Your task to perform on an android device: choose inbox layout in the gmail app Image 0: 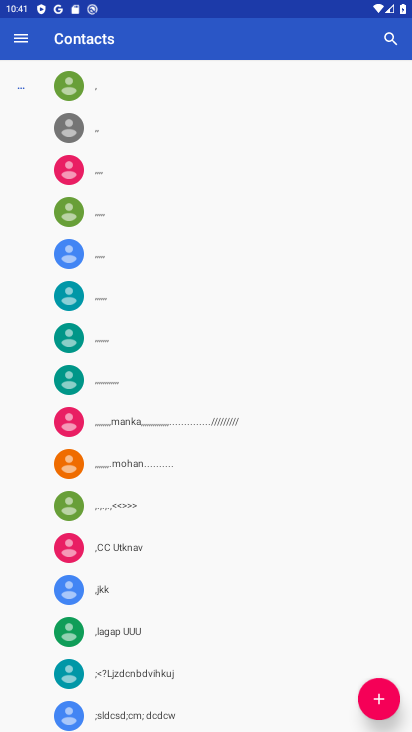
Step 0: press home button
Your task to perform on an android device: choose inbox layout in the gmail app Image 1: 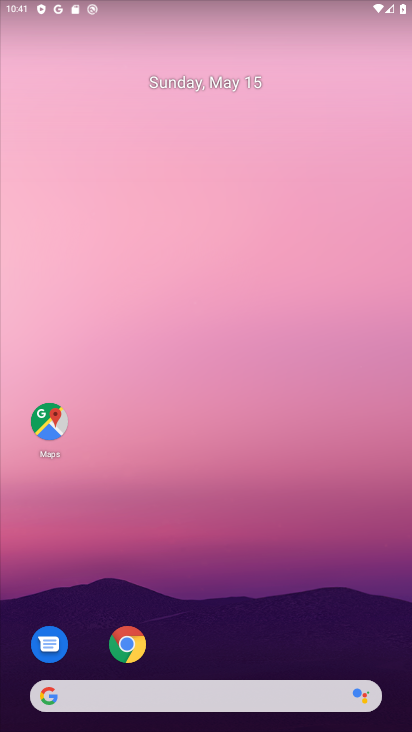
Step 1: drag from (246, 653) to (233, 250)
Your task to perform on an android device: choose inbox layout in the gmail app Image 2: 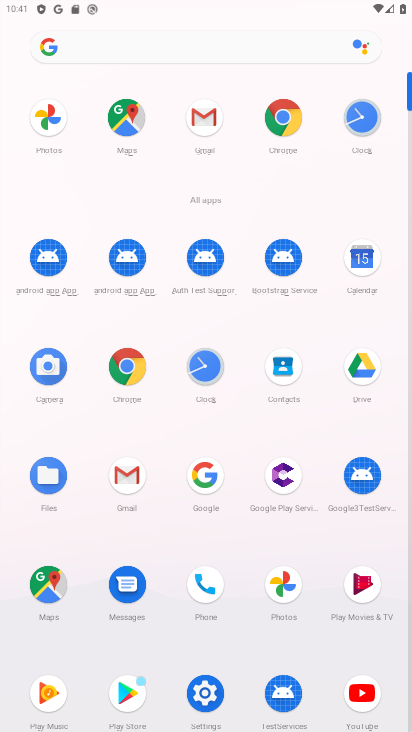
Step 2: click (206, 130)
Your task to perform on an android device: choose inbox layout in the gmail app Image 3: 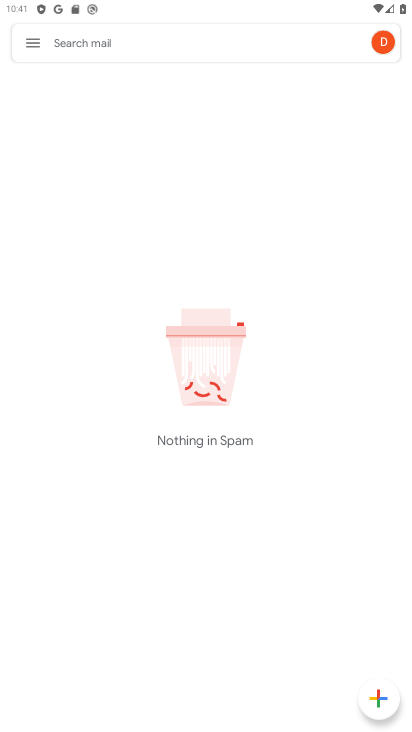
Step 3: click (34, 43)
Your task to perform on an android device: choose inbox layout in the gmail app Image 4: 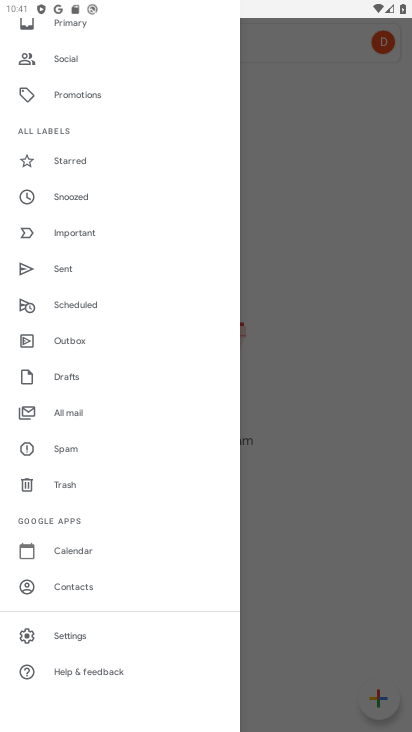
Step 4: drag from (111, 74) to (113, 18)
Your task to perform on an android device: choose inbox layout in the gmail app Image 5: 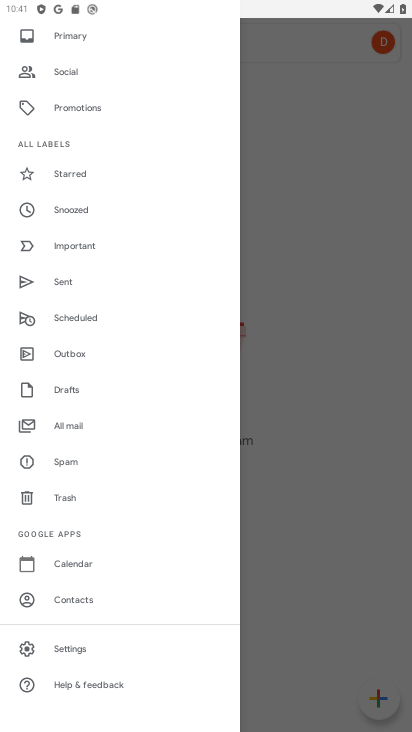
Step 5: click (99, 649)
Your task to perform on an android device: choose inbox layout in the gmail app Image 6: 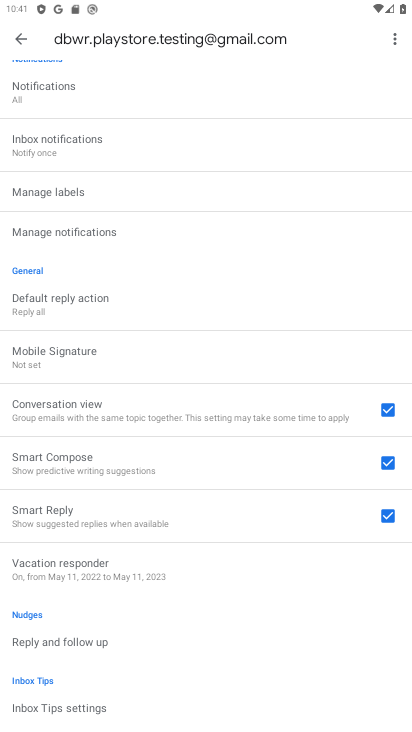
Step 6: drag from (181, 106) to (173, 557)
Your task to perform on an android device: choose inbox layout in the gmail app Image 7: 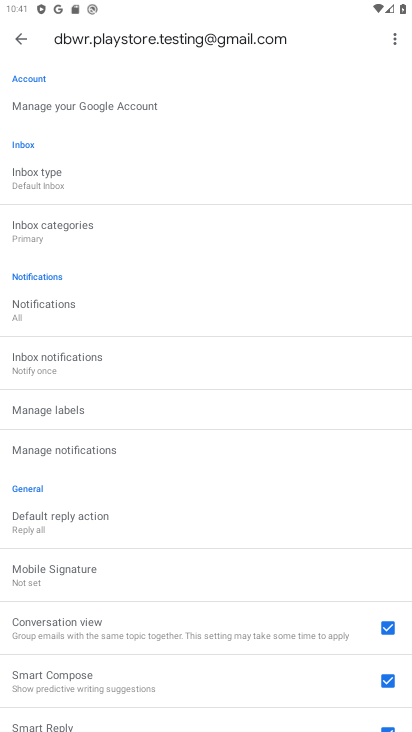
Step 7: click (165, 175)
Your task to perform on an android device: choose inbox layout in the gmail app Image 8: 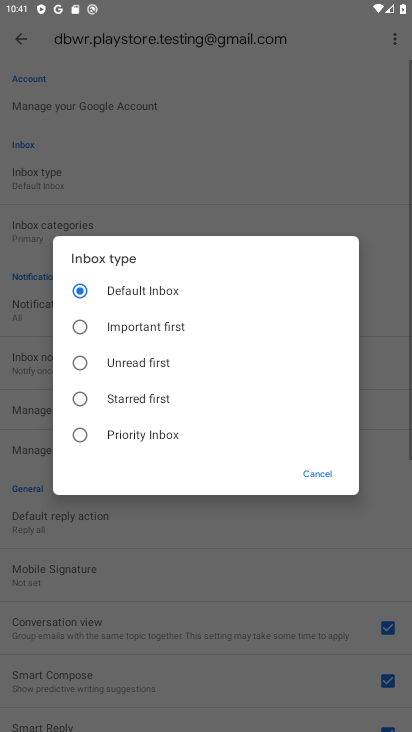
Step 8: click (160, 336)
Your task to perform on an android device: choose inbox layout in the gmail app Image 9: 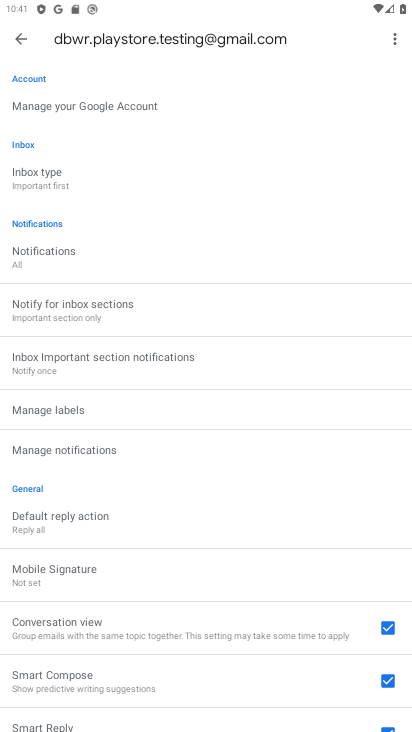
Step 9: task complete